Your task to perform on an android device: Turn off the flashlight Image 0: 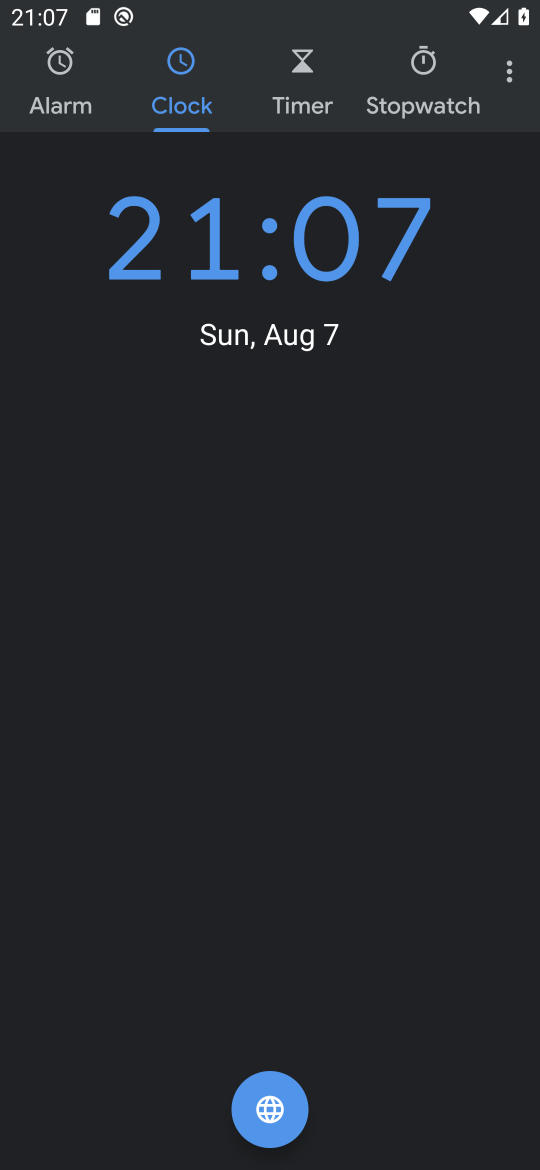
Step 0: press home button
Your task to perform on an android device: Turn off the flashlight Image 1: 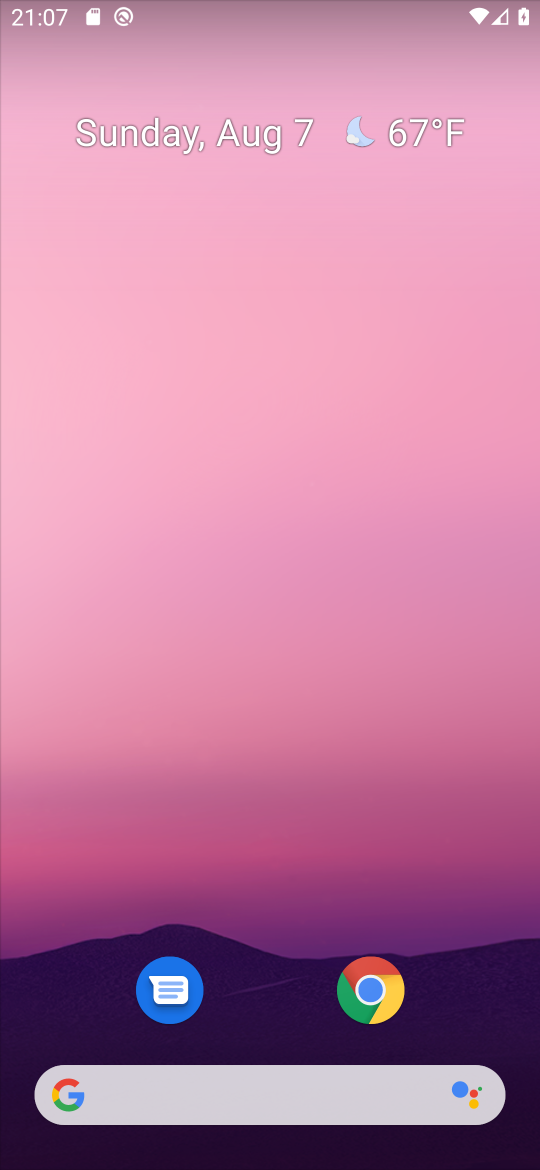
Step 1: drag from (264, 858) to (312, 0)
Your task to perform on an android device: Turn off the flashlight Image 2: 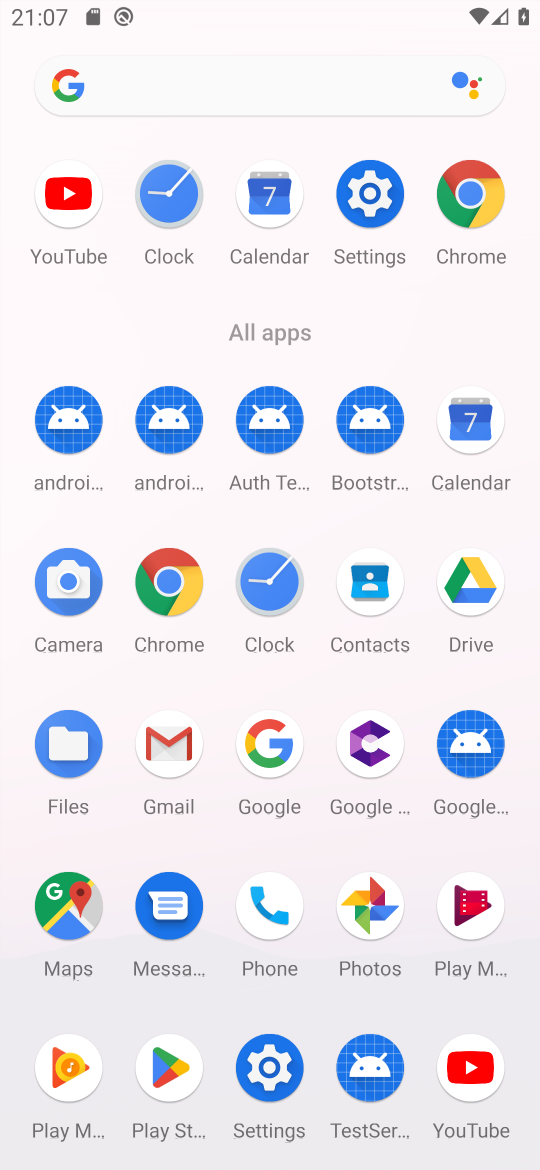
Step 2: click (368, 204)
Your task to perform on an android device: Turn off the flashlight Image 3: 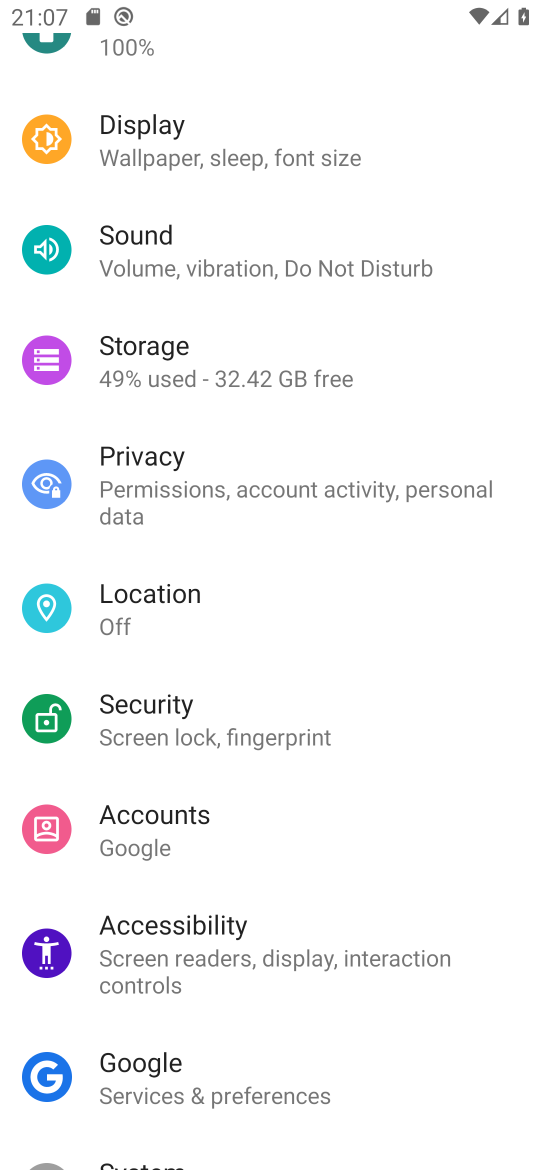
Step 3: drag from (337, 564) to (385, 976)
Your task to perform on an android device: Turn off the flashlight Image 4: 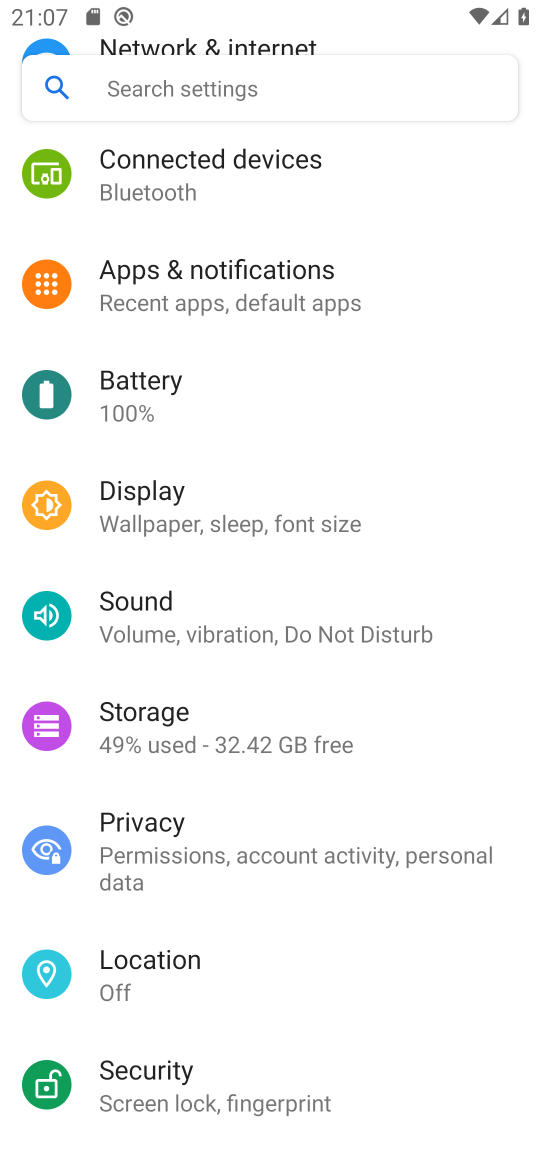
Step 4: drag from (323, 538) to (337, 977)
Your task to perform on an android device: Turn off the flashlight Image 5: 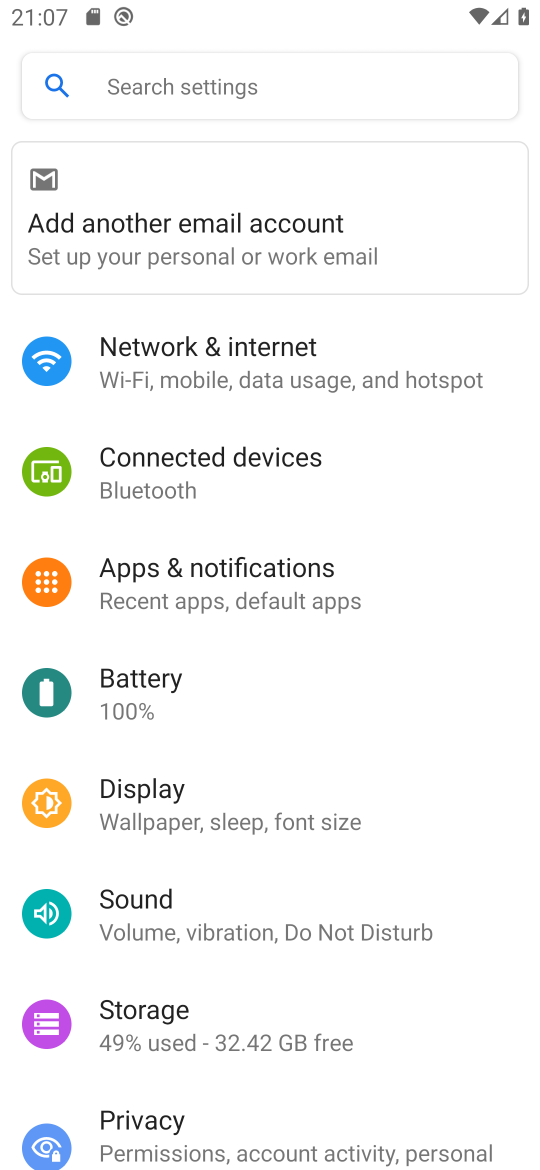
Step 5: click (355, 75)
Your task to perform on an android device: Turn off the flashlight Image 6: 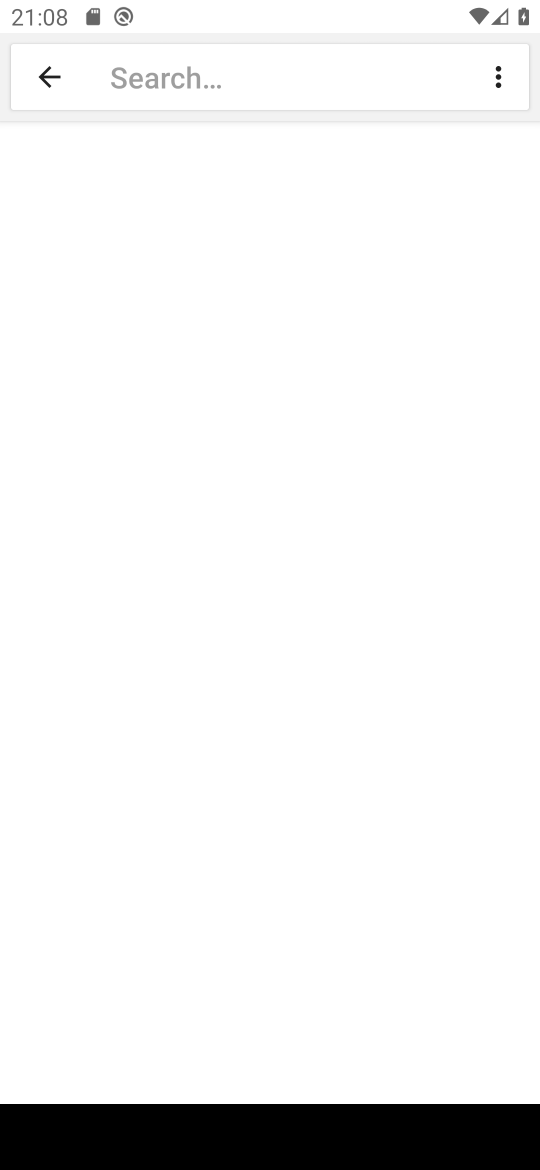
Step 6: type "Flashlight"
Your task to perform on an android device: Turn off the flashlight Image 7: 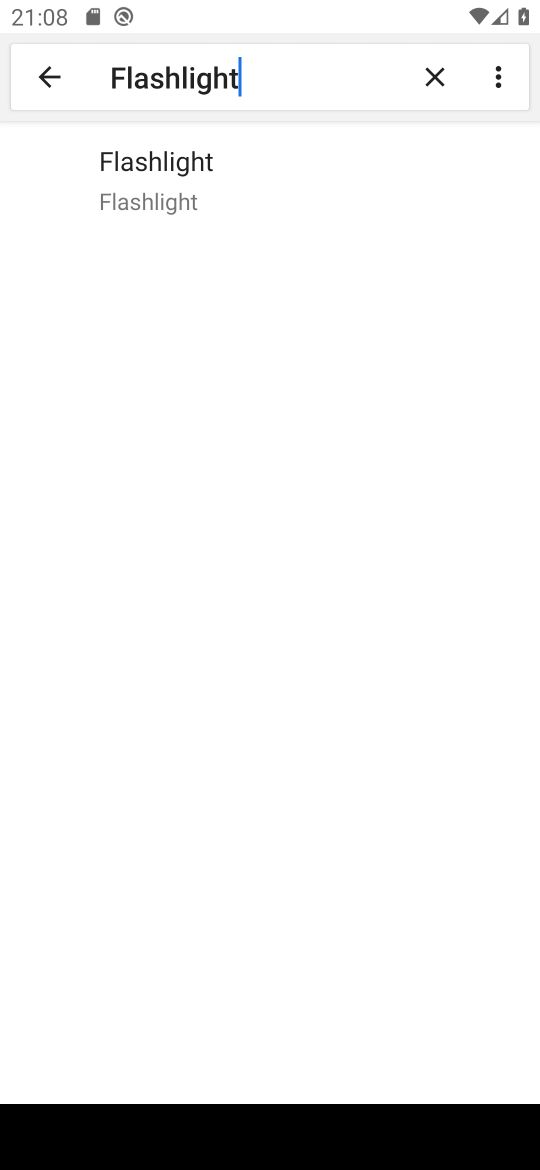
Step 7: click (183, 176)
Your task to perform on an android device: Turn off the flashlight Image 8: 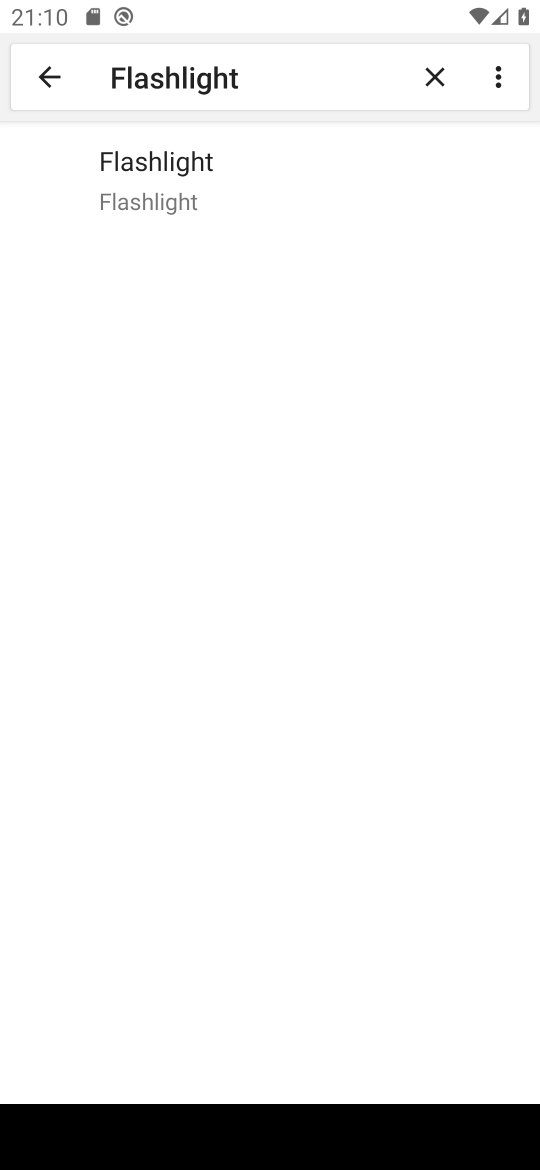
Step 8: task complete